Your task to perform on an android device: open chrome privacy settings Image 0: 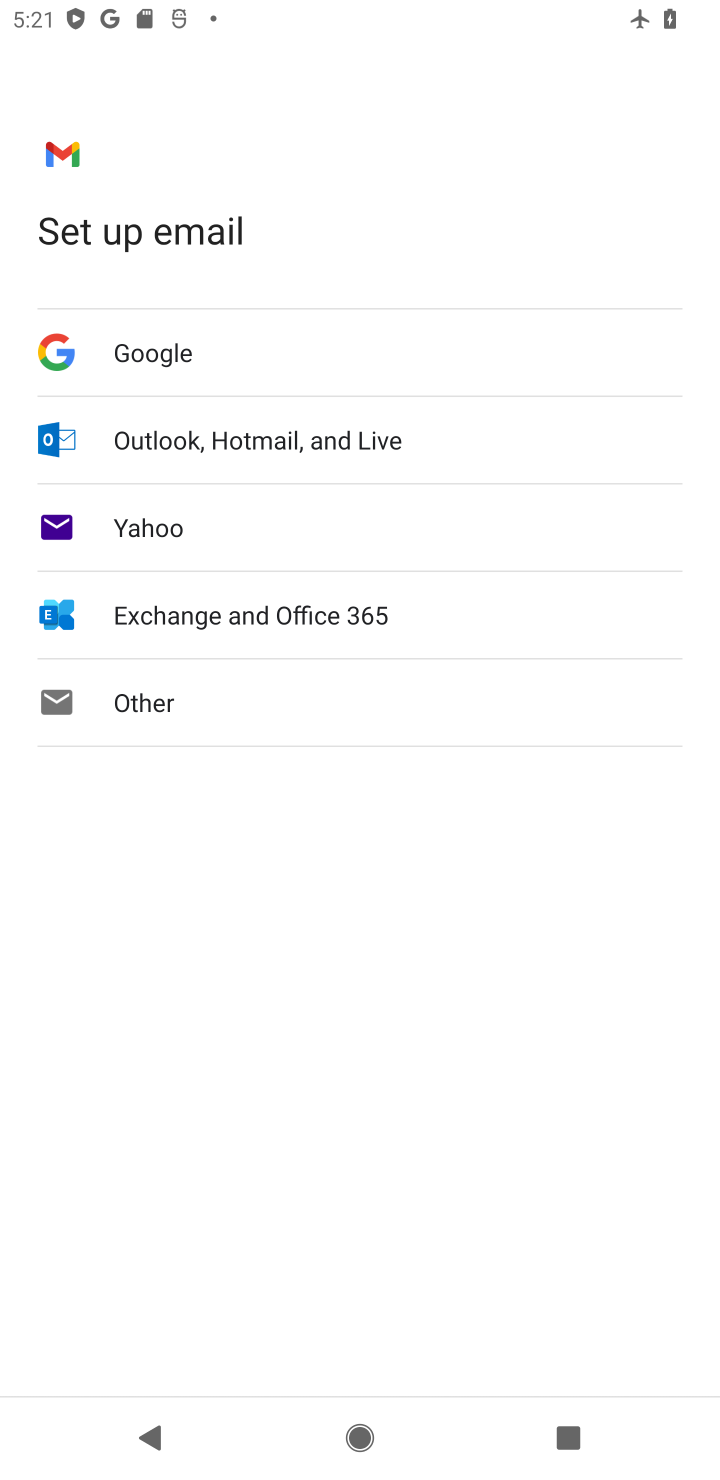
Step 0: press home button
Your task to perform on an android device: open chrome privacy settings Image 1: 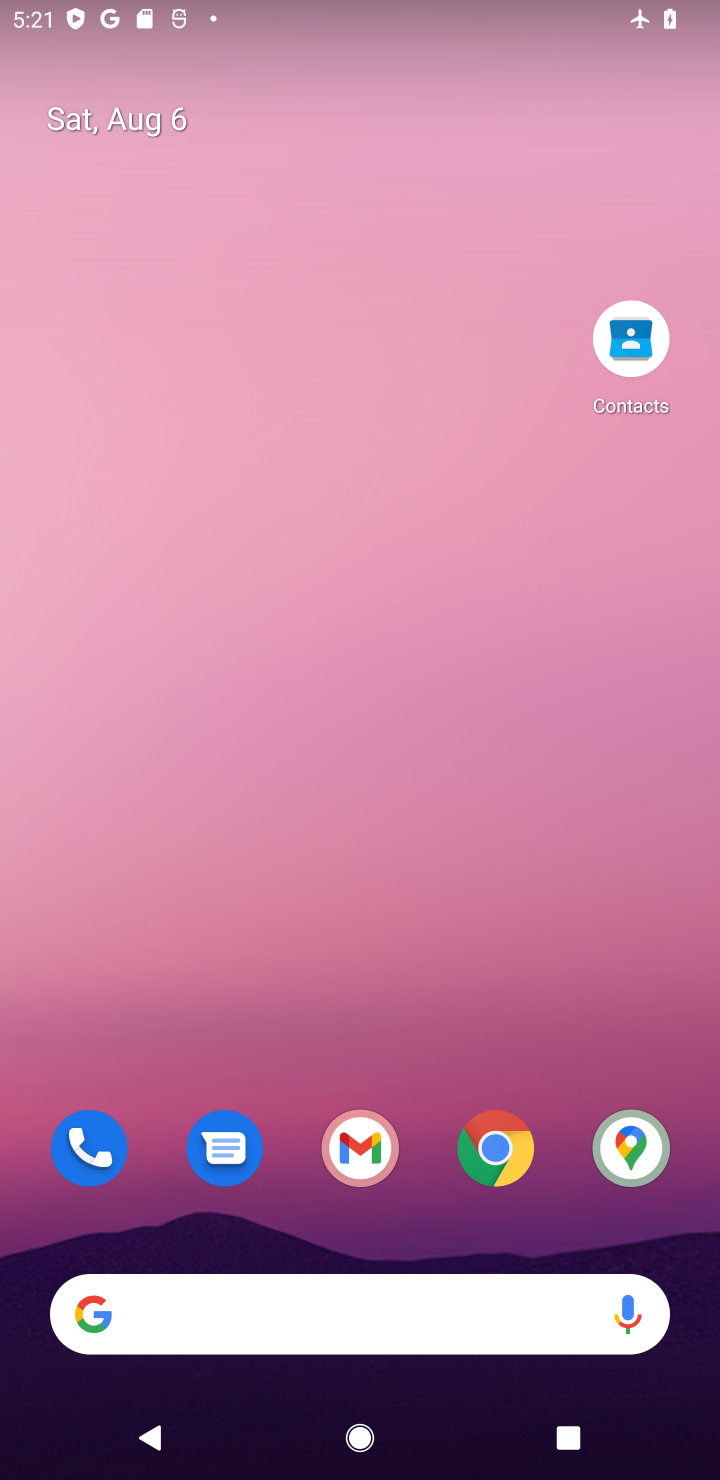
Step 1: click (506, 1179)
Your task to perform on an android device: open chrome privacy settings Image 2: 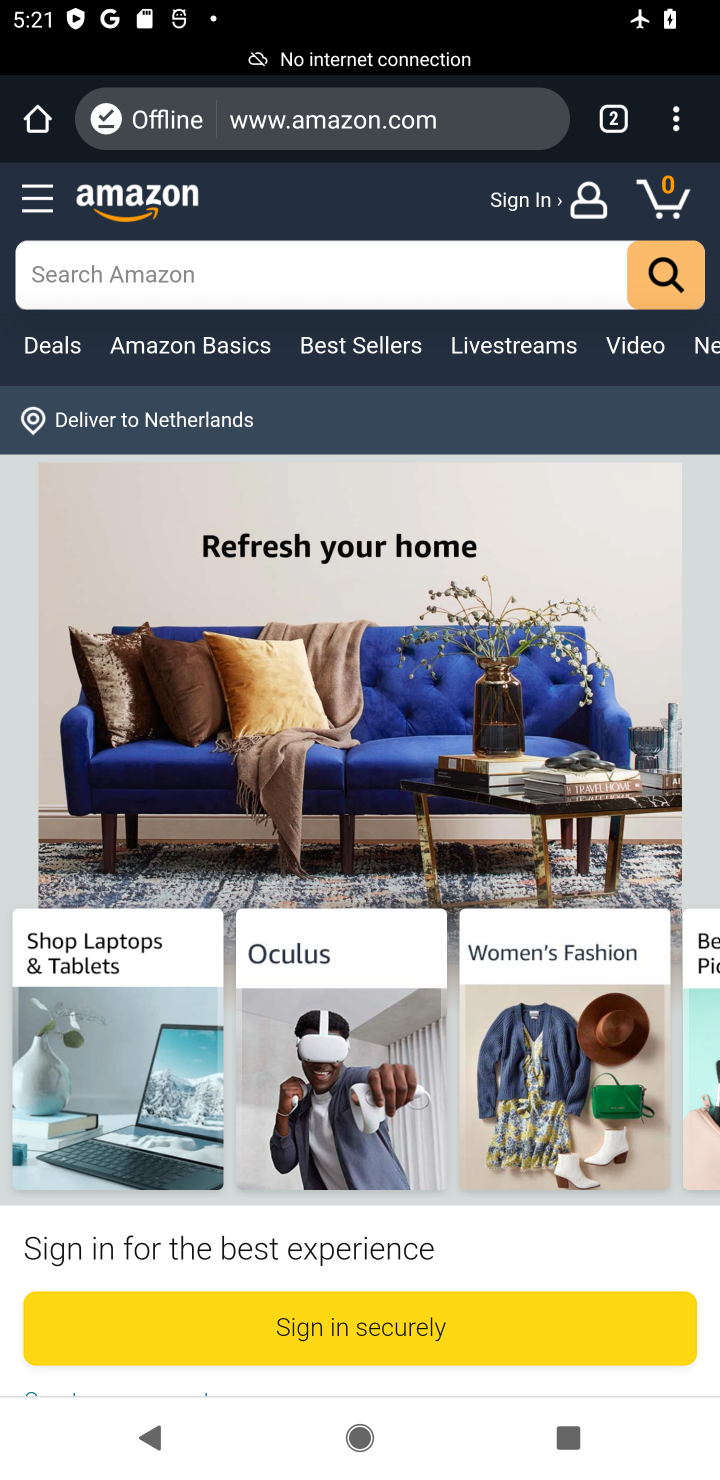
Step 2: drag from (674, 123) to (416, 1100)
Your task to perform on an android device: open chrome privacy settings Image 3: 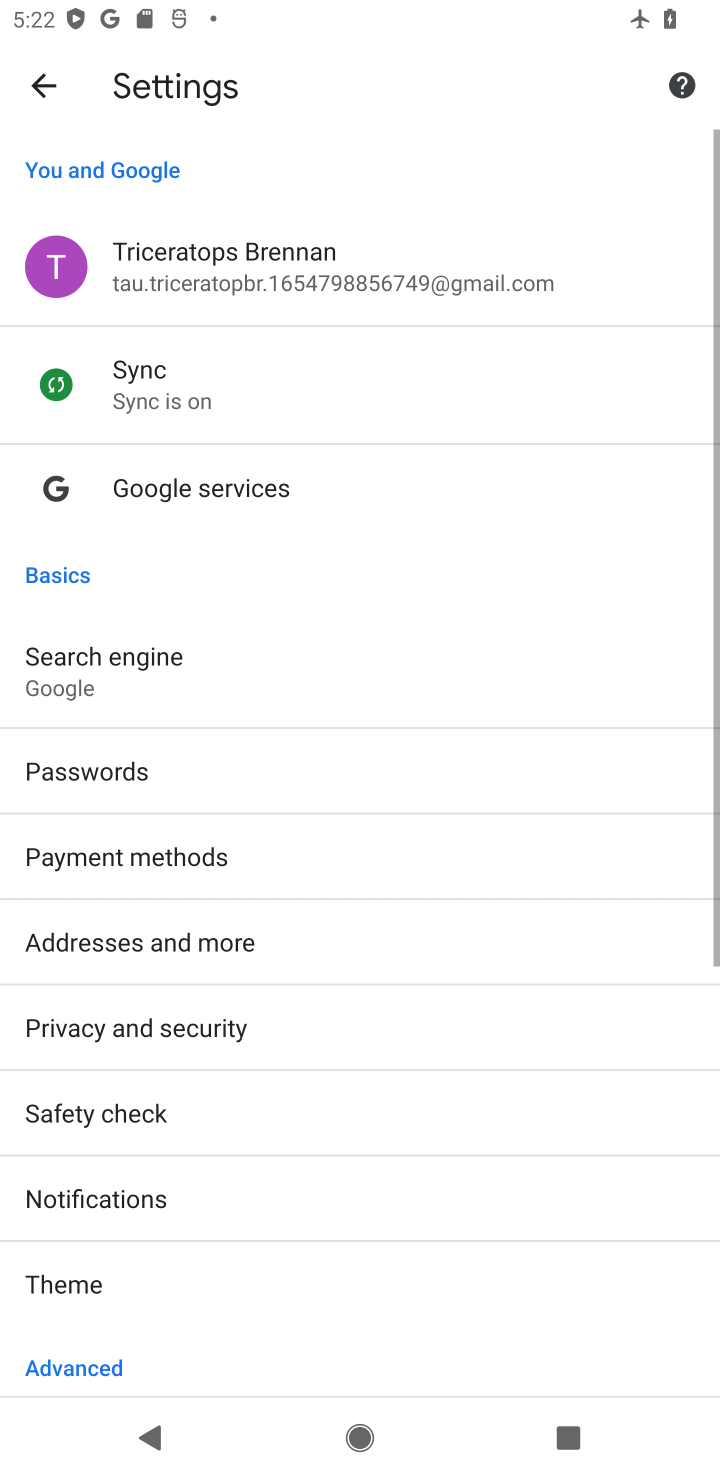
Step 3: drag from (275, 1245) to (273, 157)
Your task to perform on an android device: open chrome privacy settings Image 4: 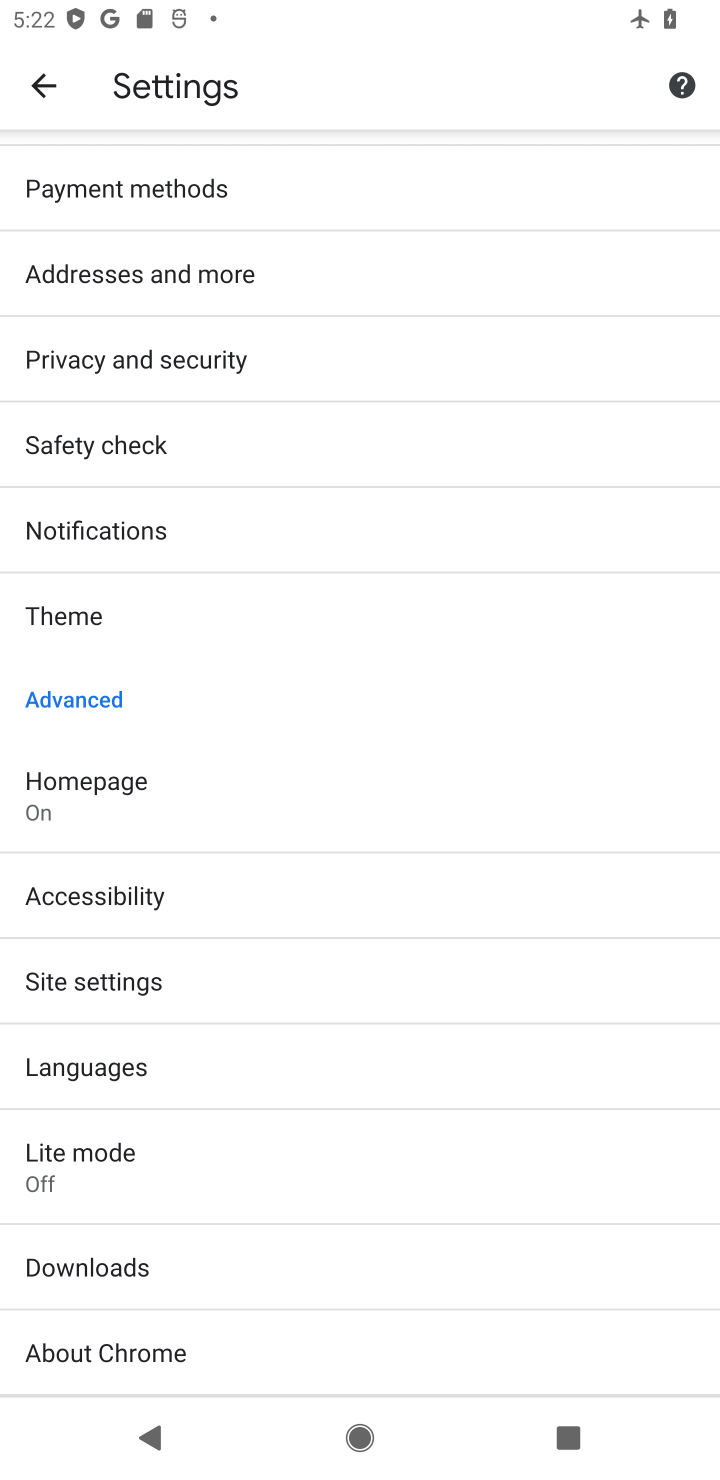
Step 4: drag from (178, 1035) to (209, 223)
Your task to perform on an android device: open chrome privacy settings Image 5: 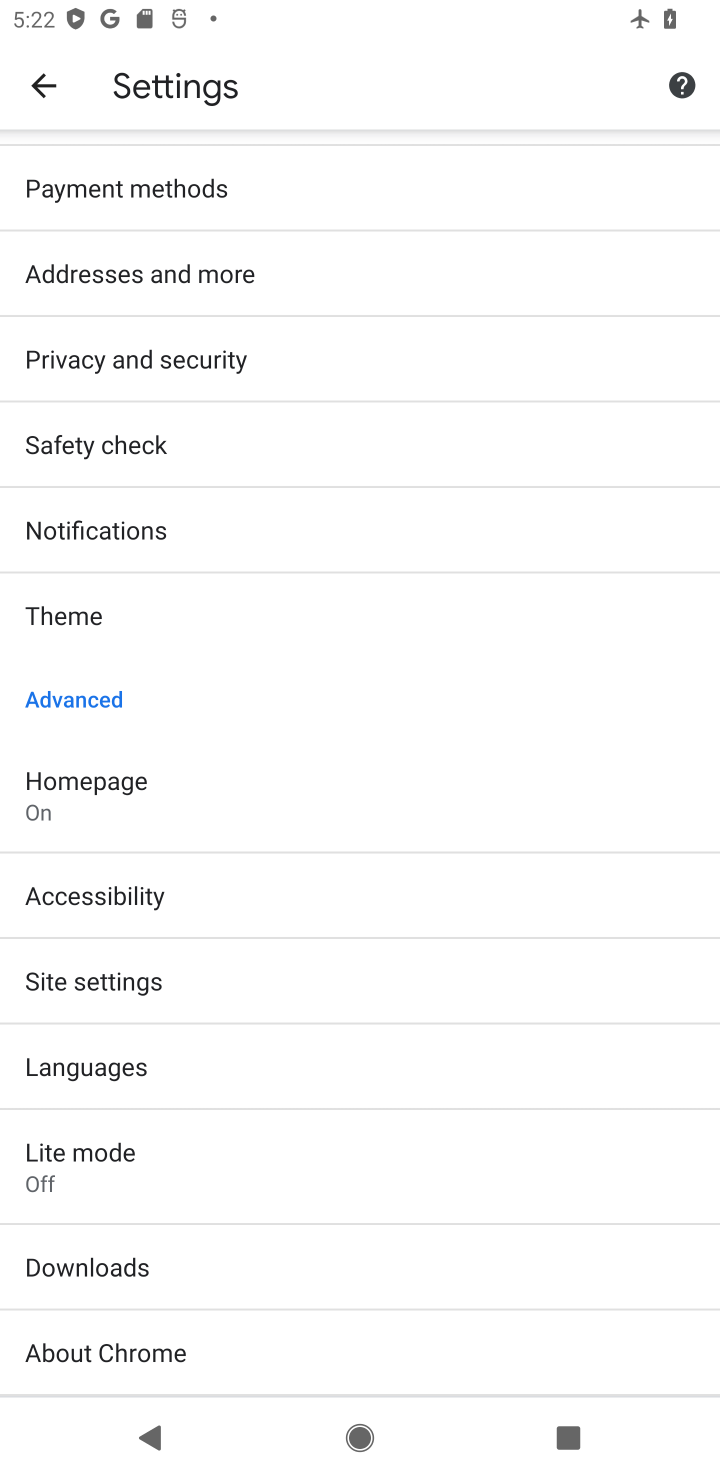
Step 5: drag from (161, 407) to (135, 1116)
Your task to perform on an android device: open chrome privacy settings Image 6: 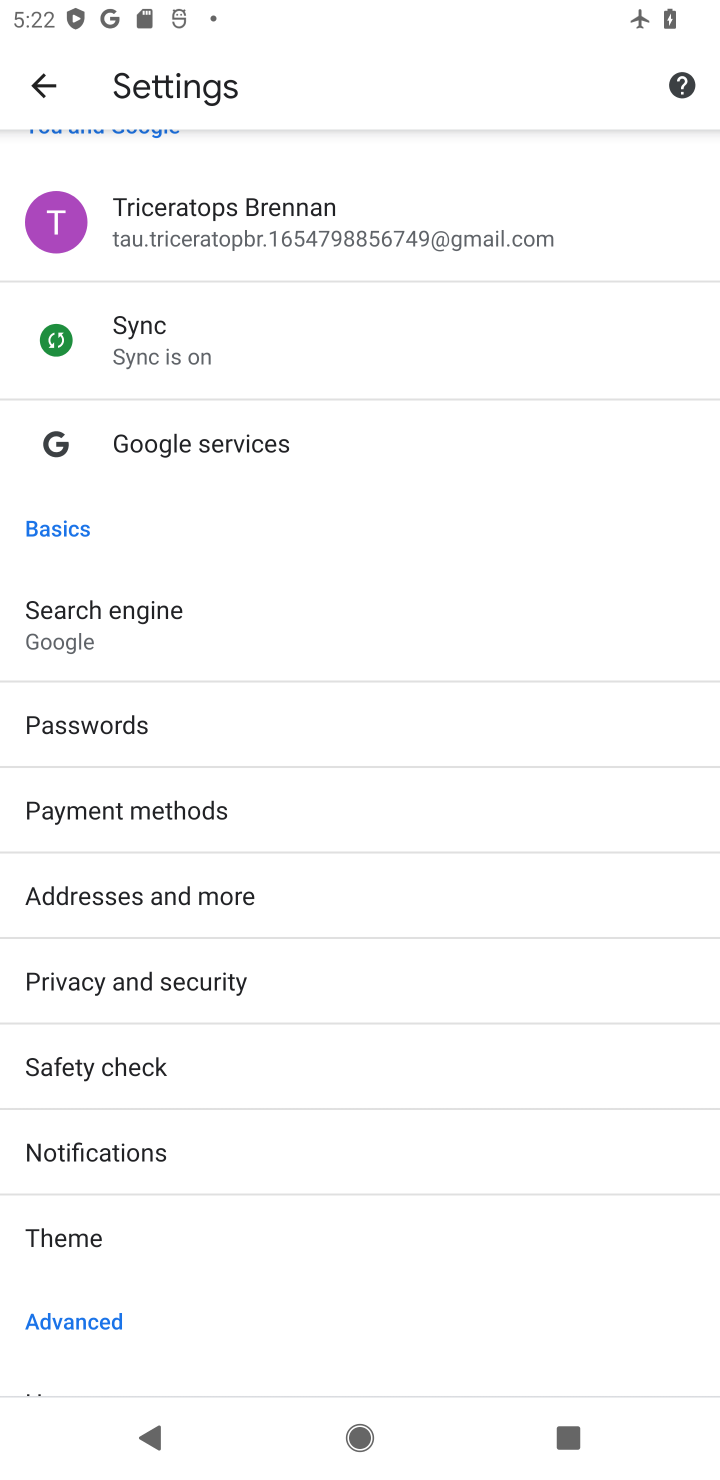
Step 6: click (147, 988)
Your task to perform on an android device: open chrome privacy settings Image 7: 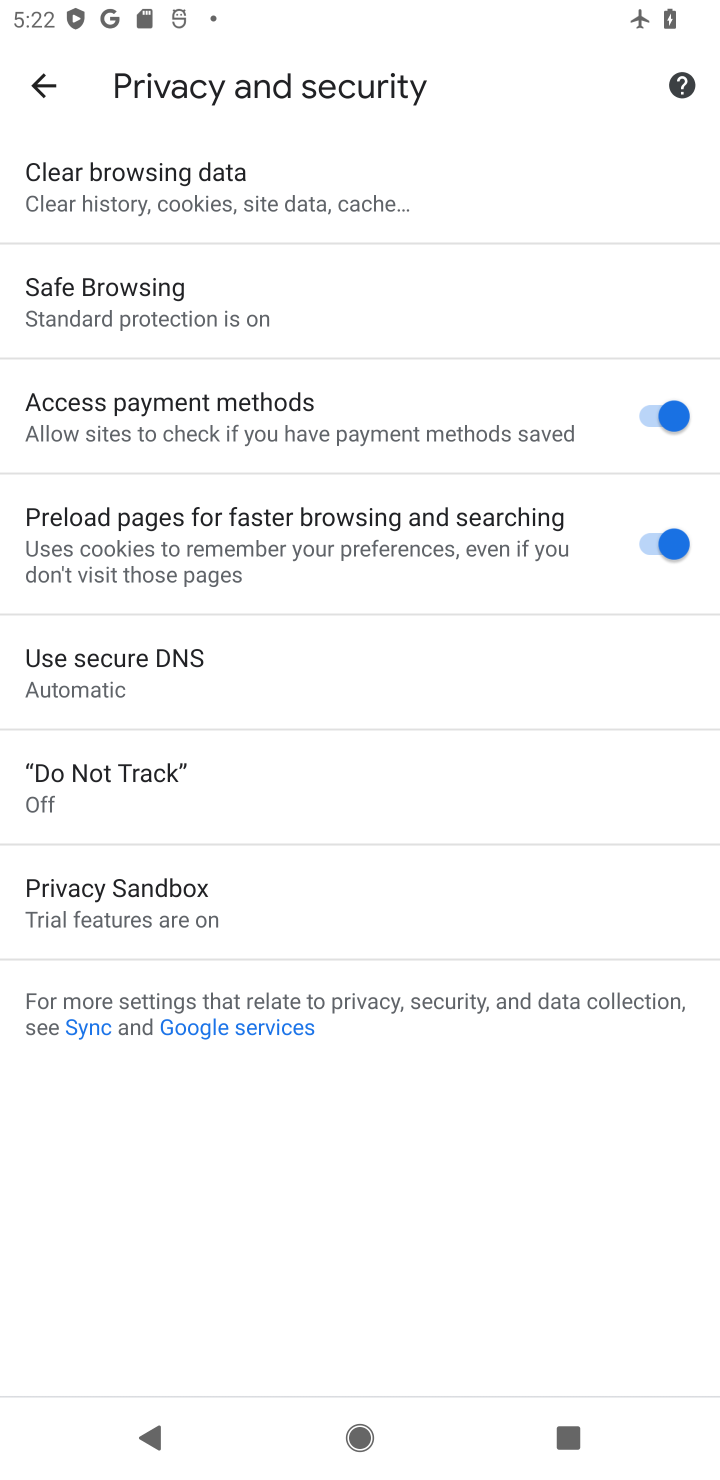
Step 7: task complete